Your task to perform on an android device: choose inbox layout in the gmail app Image 0: 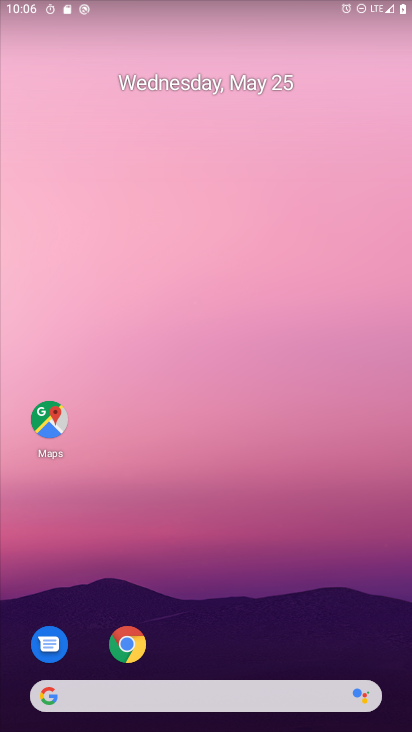
Step 0: drag from (337, 634) to (299, 43)
Your task to perform on an android device: choose inbox layout in the gmail app Image 1: 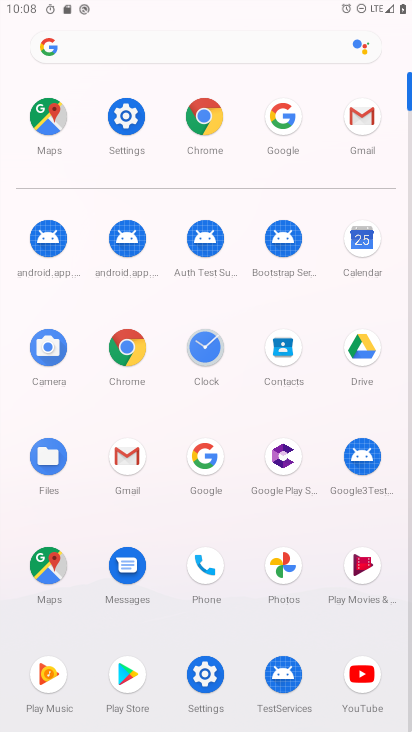
Step 1: click (112, 470)
Your task to perform on an android device: choose inbox layout in the gmail app Image 2: 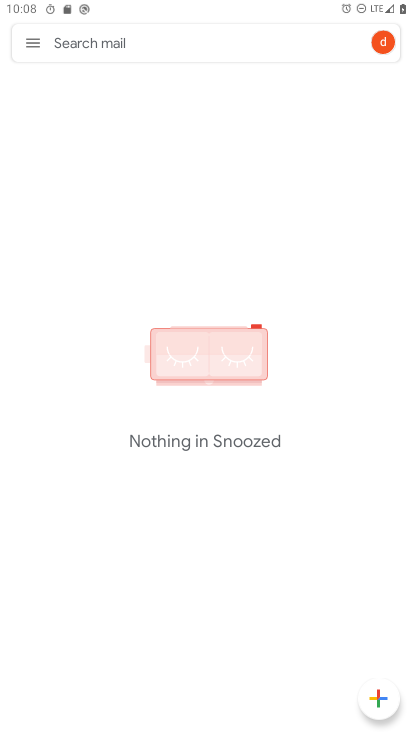
Step 2: click (27, 27)
Your task to perform on an android device: choose inbox layout in the gmail app Image 3: 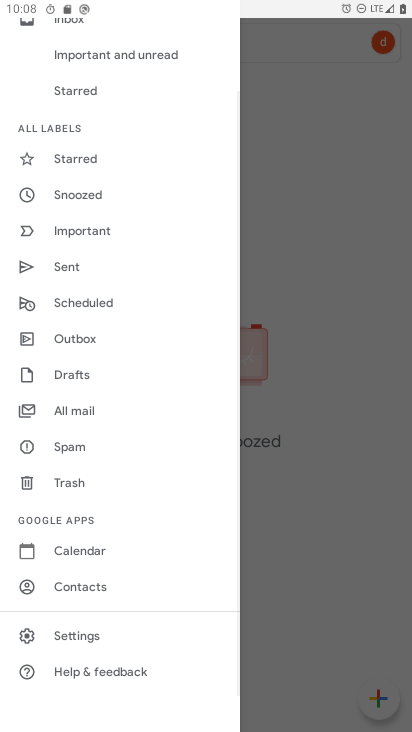
Step 3: drag from (53, 57) to (86, 413)
Your task to perform on an android device: choose inbox layout in the gmail app Image 4: 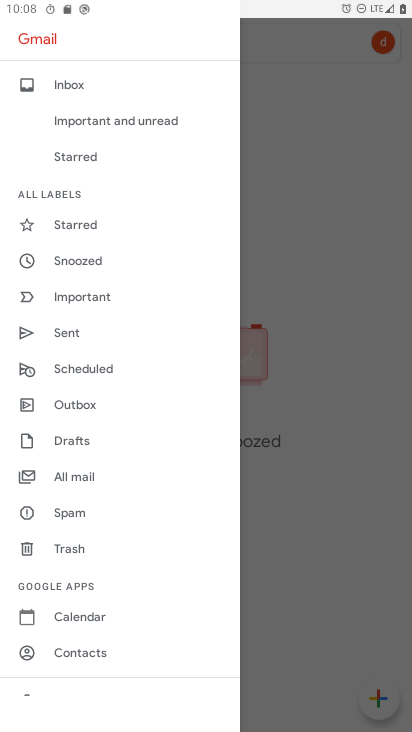
Step 4: click (112, 85)
Your task to perform on an android device: choose inbox layout in the gmail app Image 5: 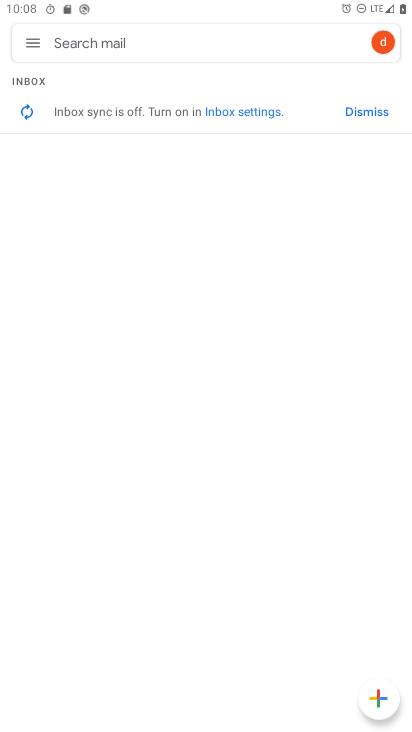
Step 5: task complete